Your task to perform on an android device: Open the map Image 0: 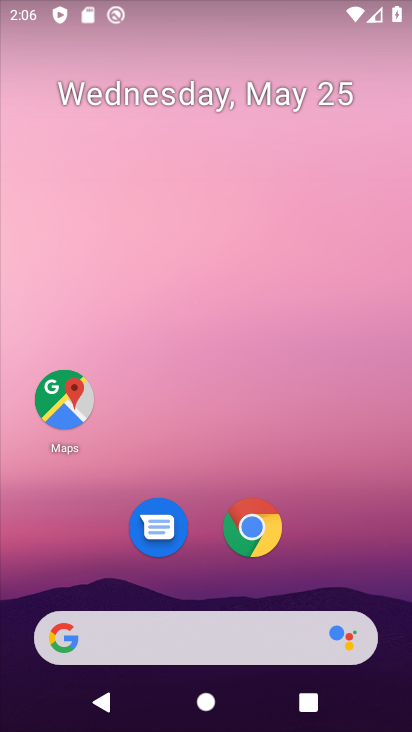
Step 0: drag from (193, 575) to (359, 125)
Your task to perform on an android device: Open the map Image 1: 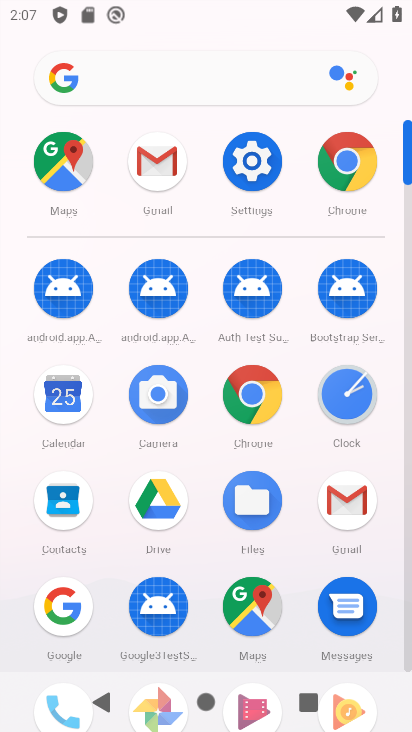
Step 1: click (264, 601)
Your task to perform on an android device: Open the map Image 2: 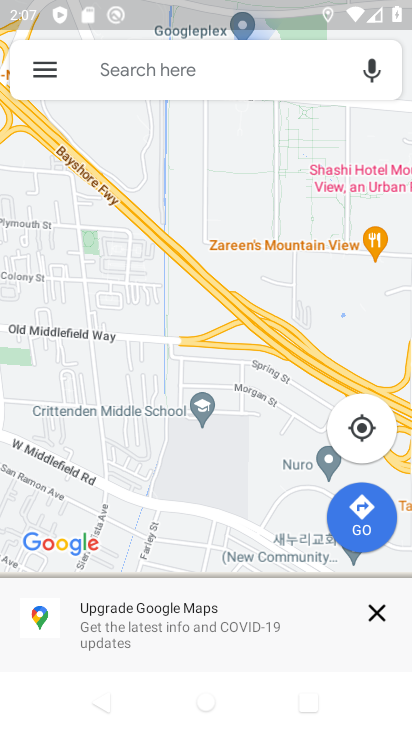
Step 2: task complete